Your task to perform on an android device: Go to wifi settings Image 0: 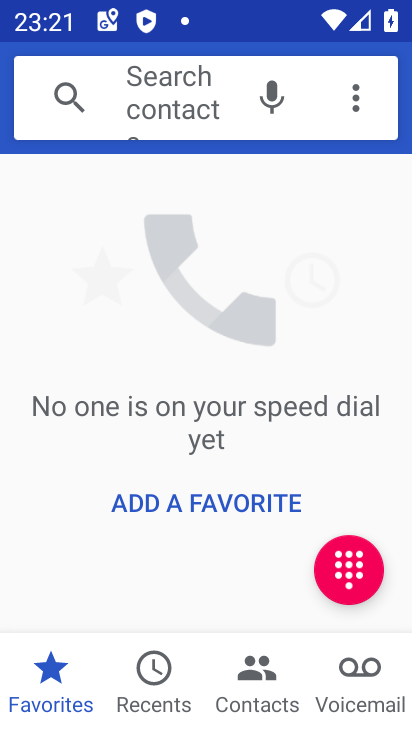
Step 0: press home button
Your task to perform on an android device: Go to wifi settings Image 1: 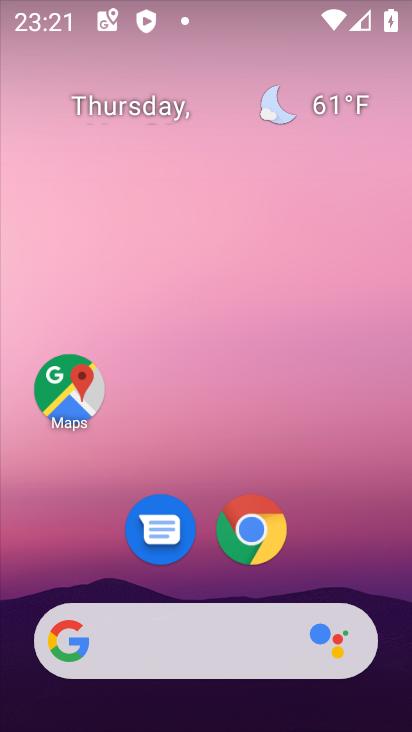
Step 1: drag from (318, 577) to (325, 192)
Your task to perform on an android device: Go to wifi settings Image 2: 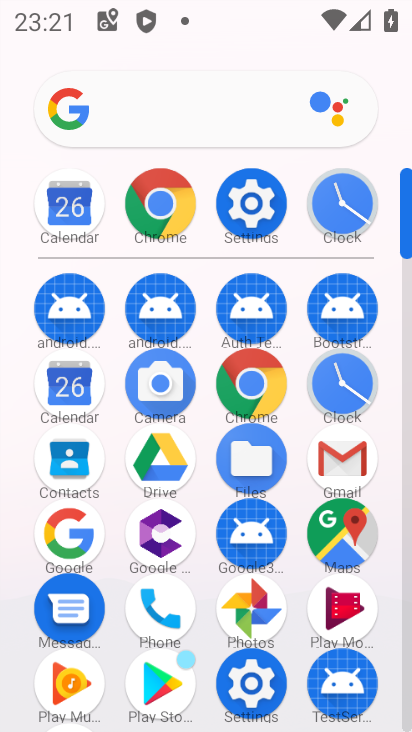
Step 2: click (252, 228)
Your task to perform on an android device: Go to wifi settings Image 3: 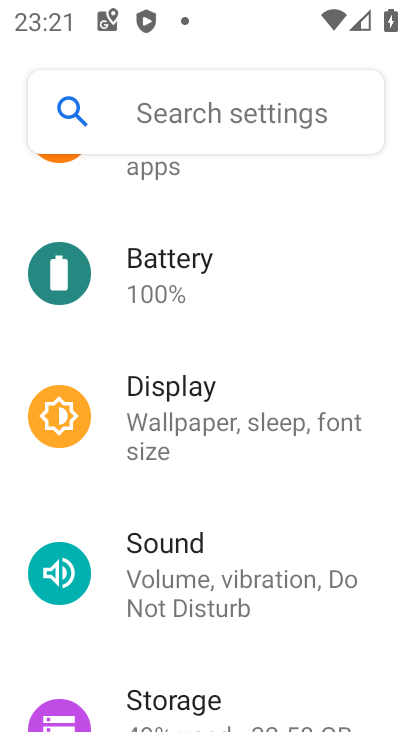
Step 3: drag from (283, 196) to (248, 729)
Your task to perform on an android device: Go to wifi settings Image 4: 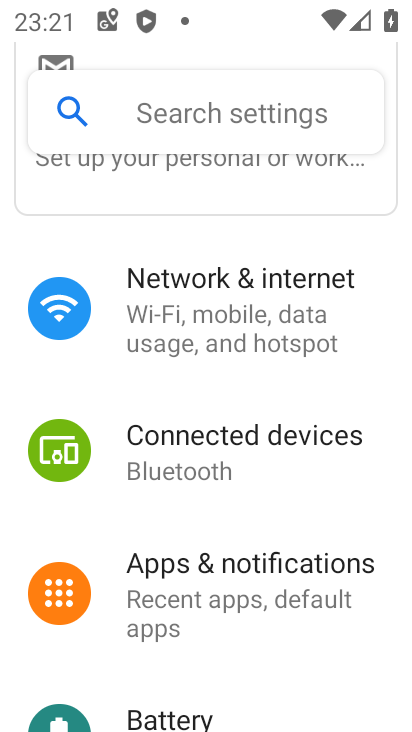
Step 4: click (248, 342)
Your task to perform on an android device: Go to wifi settings Image 5: 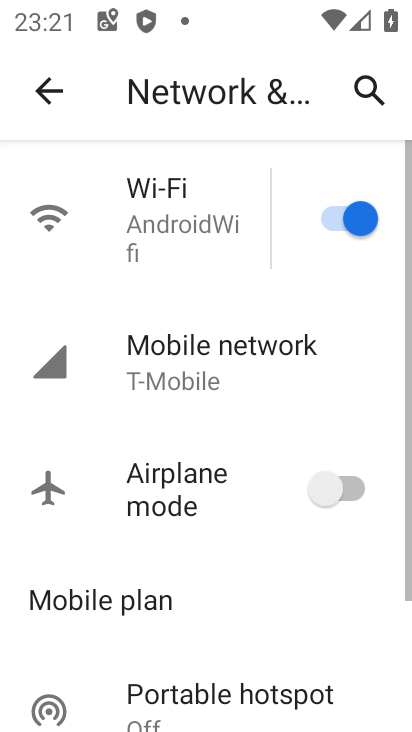
Step 5: click (184, 241)
Your task to perform on an android device: Go to wifi settings Image 6: 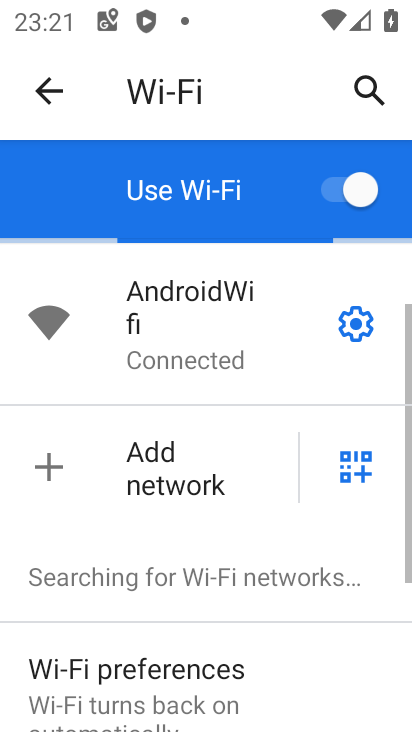
Step 6: task complete